Your task to perform on an android device: Show me popular games on the Play Store Image 0: 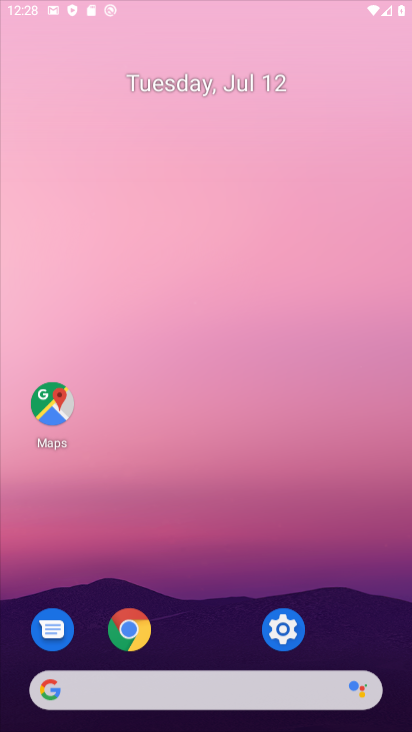
Step 0: click (276, 620)
Your task to perform on an android device: Show me popular games on the Play Store Image 1: 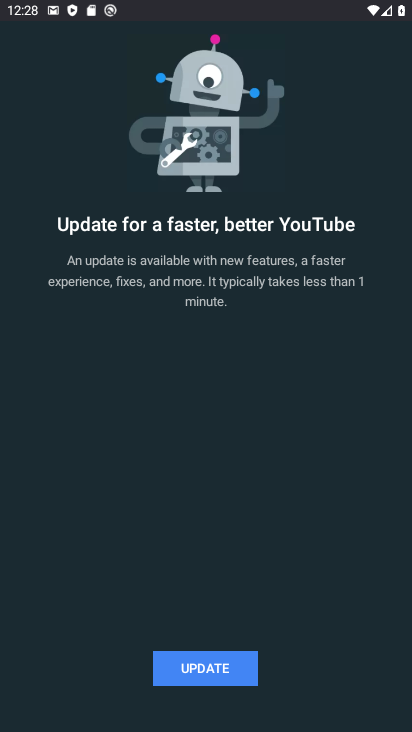
Step 1: press home button
Your task to perform on an android device: Show me popular games on the Play Store Image 2: 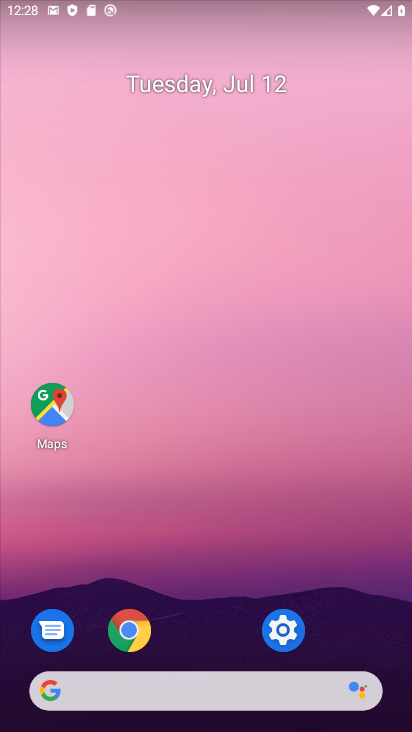
Step 2: click (292, 629)
Your task to perform on an android device: Show me popular games on the Play Store Image 3: 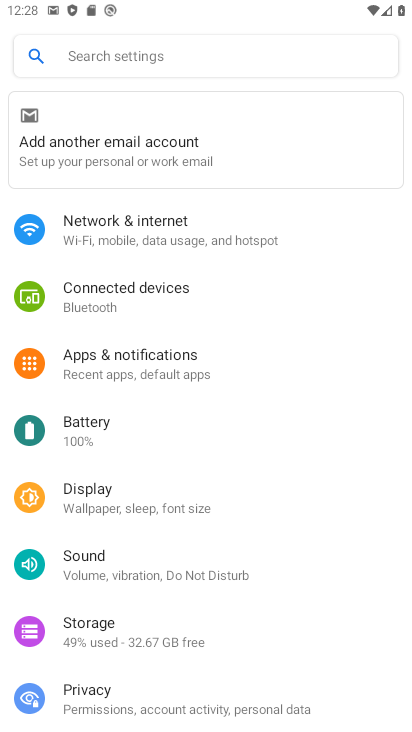
Step 3: click (102, 218)
Your task to perform on an android device: Show me popular games on the Play Store Image 4: 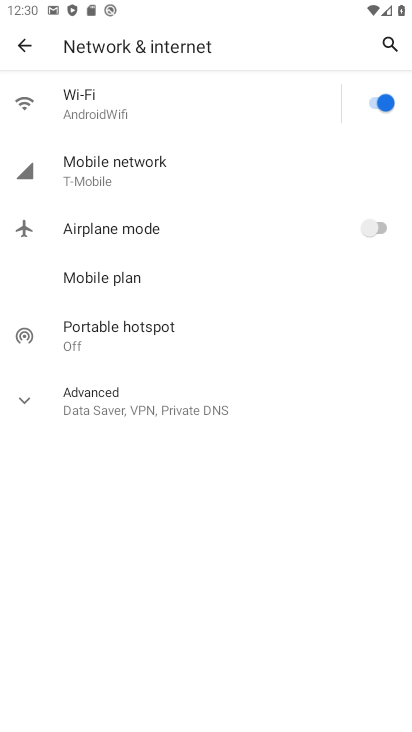
Step 4: task complete